Your task to perform on an android device: What is the news today? Image 0: 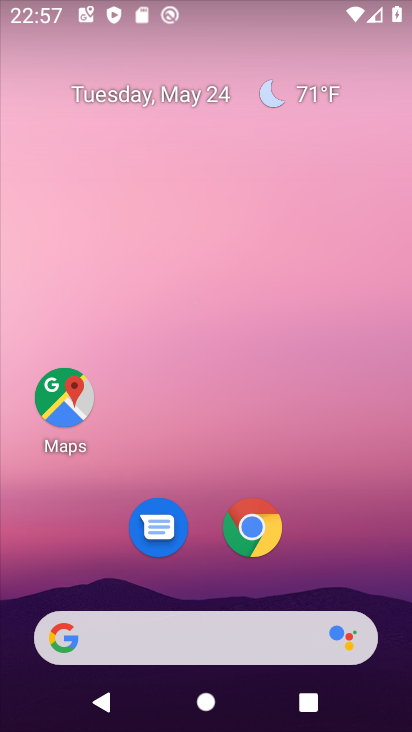
Step 0: click (197, 637)
Your task to perform on an android device: What is the news today? Image 1: 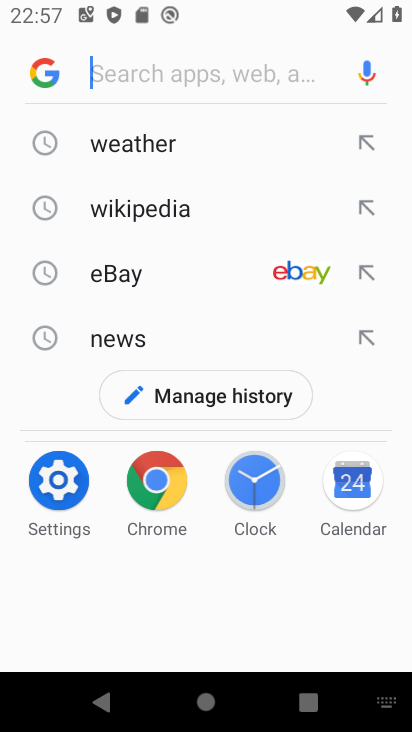
Step 1: type "what is the news today"
Your task to perform on an android device: What is the news today? Image 2: 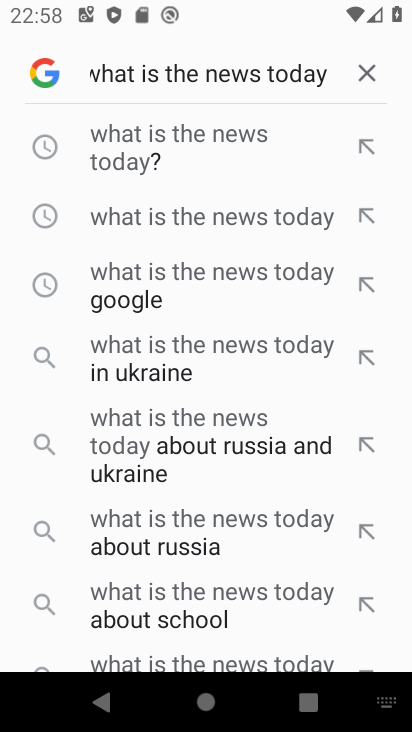
Step 2: click (175, 147)
Your task to perform on an android device: What is the news today? Image 3: 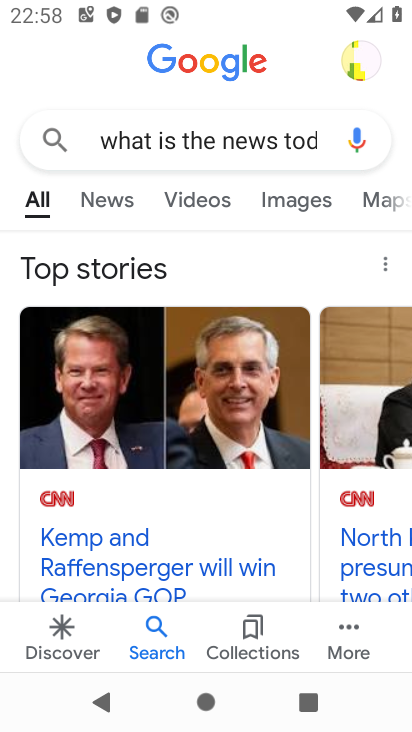
Step 3: click (101, 203)
Your task to perform on an android device: What is the news today? Image 4: 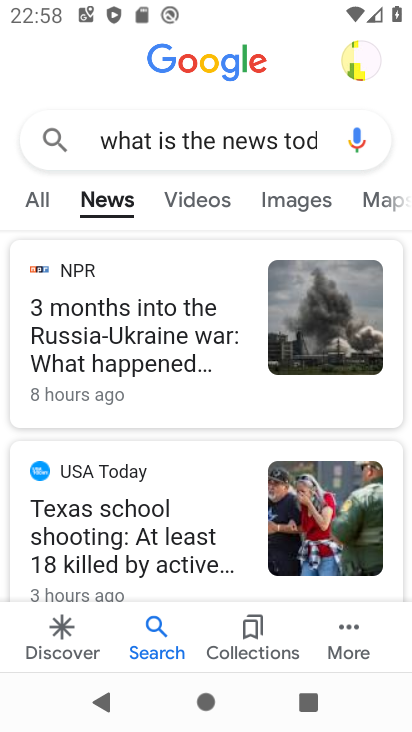
Step 4: task complete